Your task to perform on an android device: Open Youtube and go to "Your channel" Image 0: 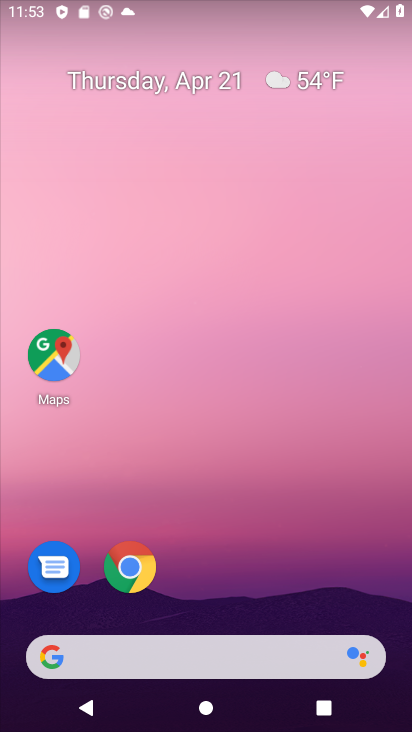
Step 0: drag from (250, 563) to (328, 27)
Your task to perform on an android device: Open Youtube and go to "Your channel" Image 1: 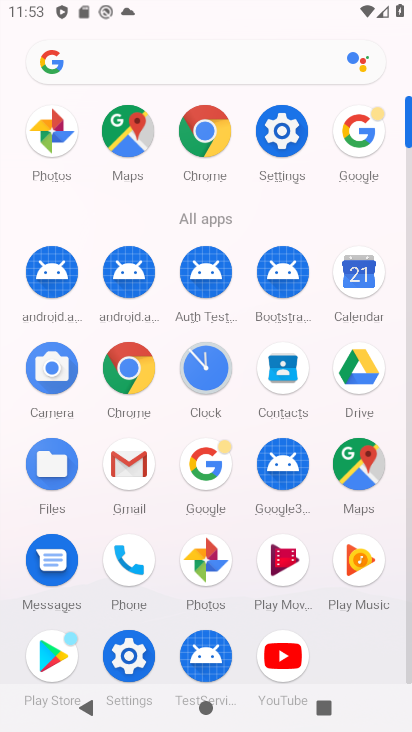
Step 1: click (294, 663)
Your task to perform on an android device: Open Youtube and go to "Your channel" Image 2: 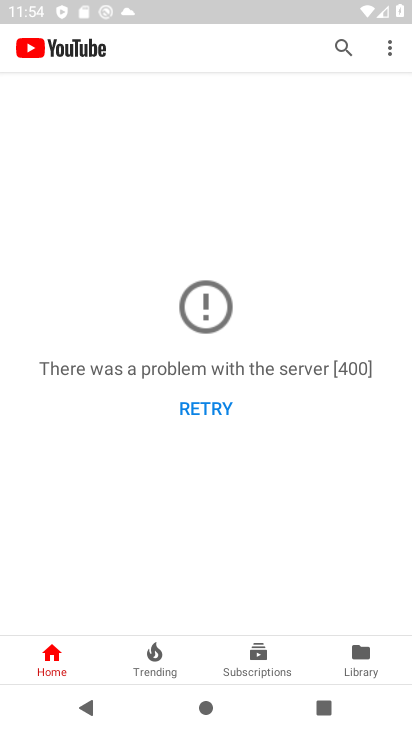
Step 2: click (366, 665)
Your task to perform on an android device: Open Youtube and go to "Your channel" Image 3: 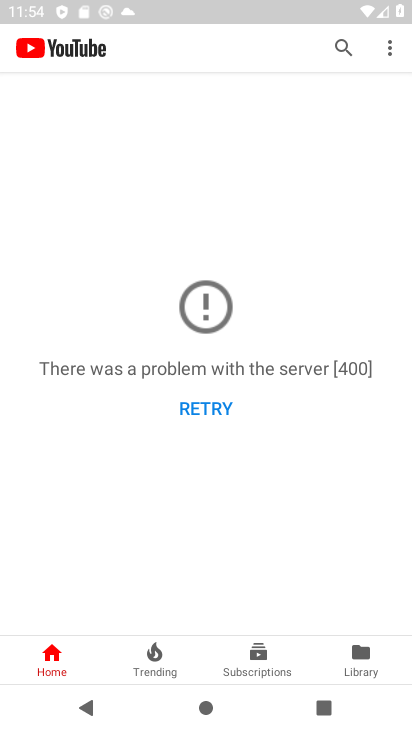
Step 3: click (373, 658)
Your task to perform on an android device: Open Youtube and go to "Your channel" Image 4: 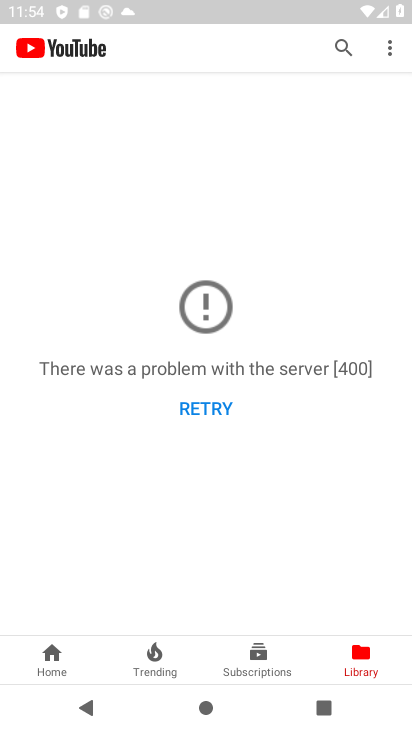
Step 4: task complete